Your task to perform on an android device: Open display settings Image 0: 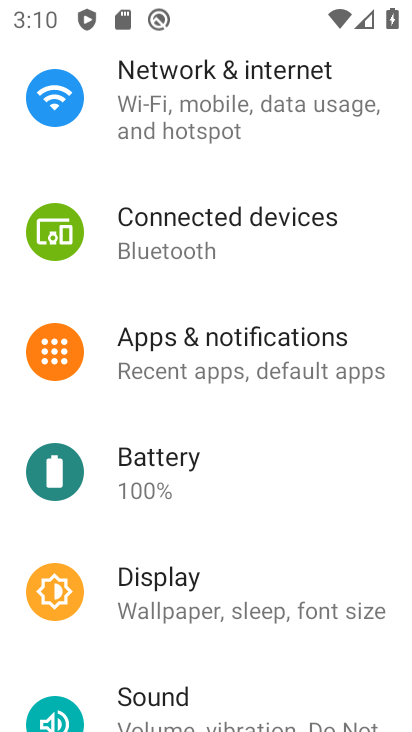
Step 0: click (242, 607)
Your task to perform on an android device: Open display settings Image 1: 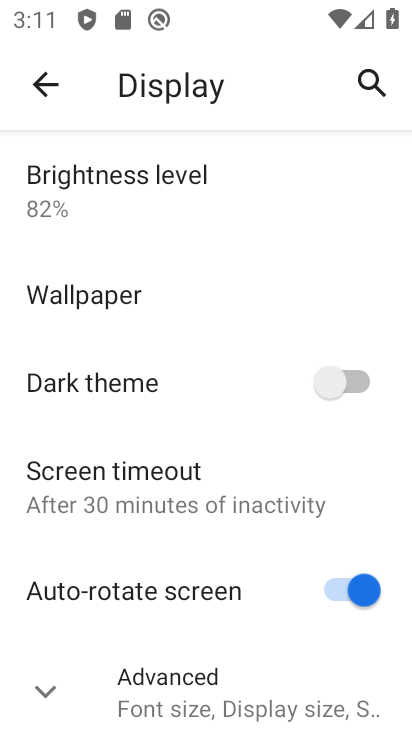
Step 1: task complete